Your task to perform on an android device: turn on notifications settings in the gmail app Image 0: 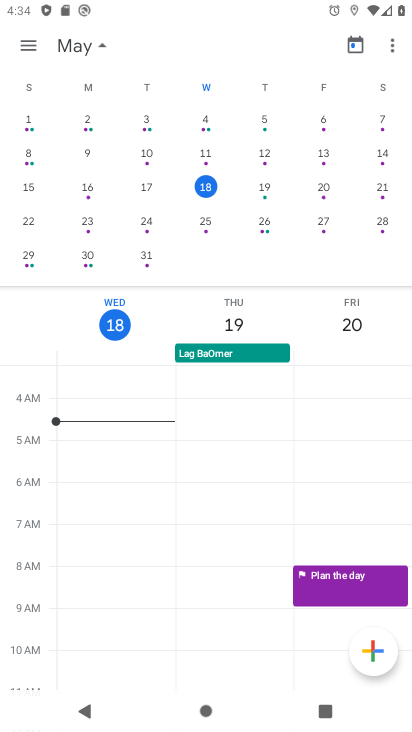
Step 0: press home button
Your task to perform on an android device: turn on notifications settings in the gmail app Image 1: 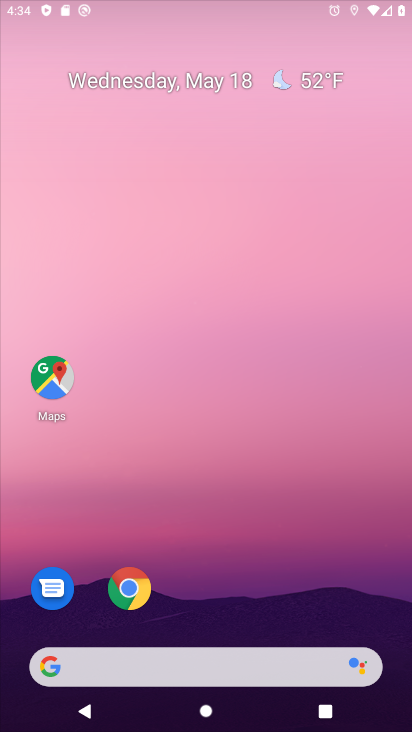
Step 1: drag from (279, 578) to (224, 109)
Your task to perform on an android device: turn on notifications settings in the gmail app Image 2: 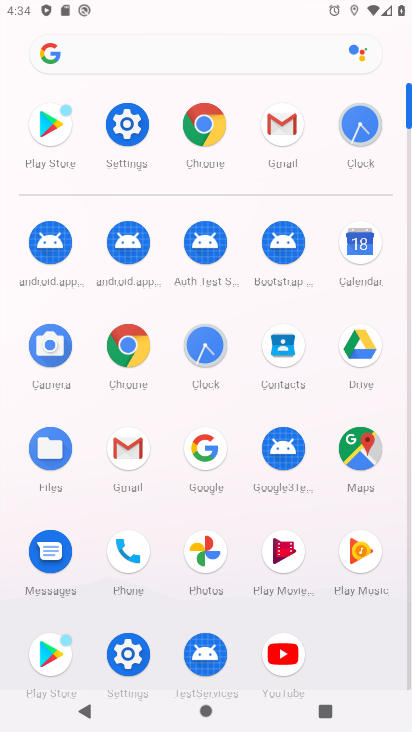
Step 2: click (299, 132)
Your task to perform on an android device: turn on notifications settings in the gmail app Image 3: 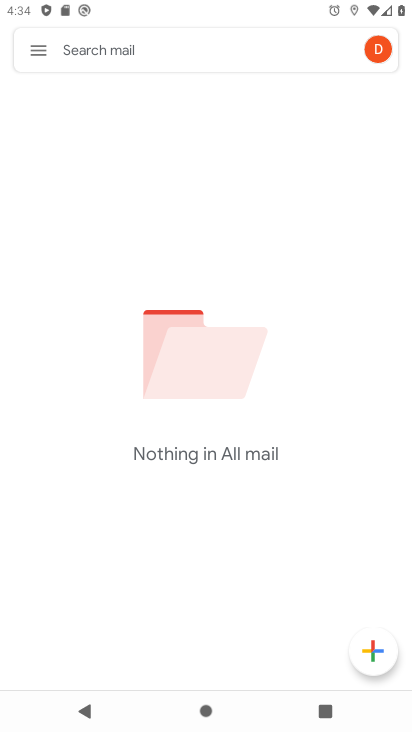
Step 3: click (38, 42)
Your task to perform on an android device: turn on notifications settings in the gmail app Image 4: 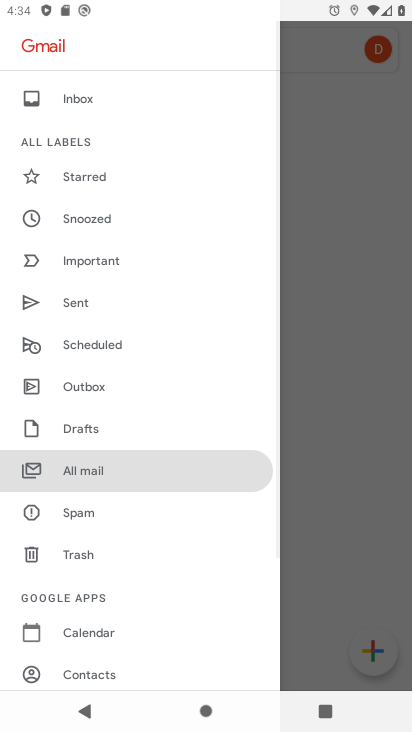
Step 4: drag from (96, 627) to (176, 237)
Your task to perform on an android device: turn on notifications settings in the gmail app Image 5: 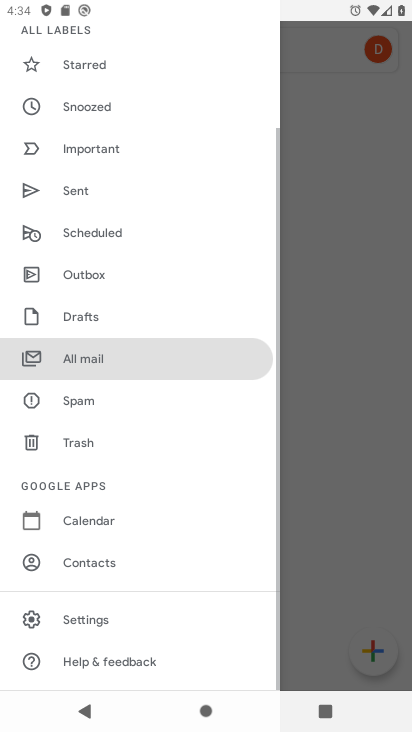
Step 5: click (95, 629)
Your task to perform on an android device: turn on notifications settings in the gmail app Image 6: 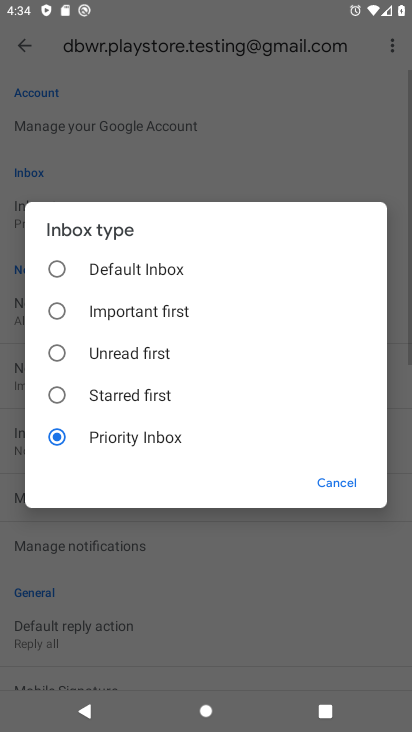
Step 6: click (325, 486)
Your task to perform on an android device: turn on notifications settings in the gmail app Image 7: 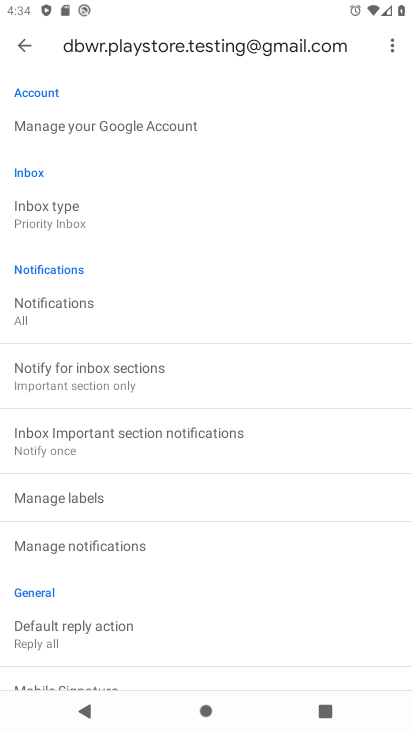
Step 7: drag from (195, 563) to (256, 346)
Your task to perform on an android device: turn on notifications settings in the gmail app Image 8: 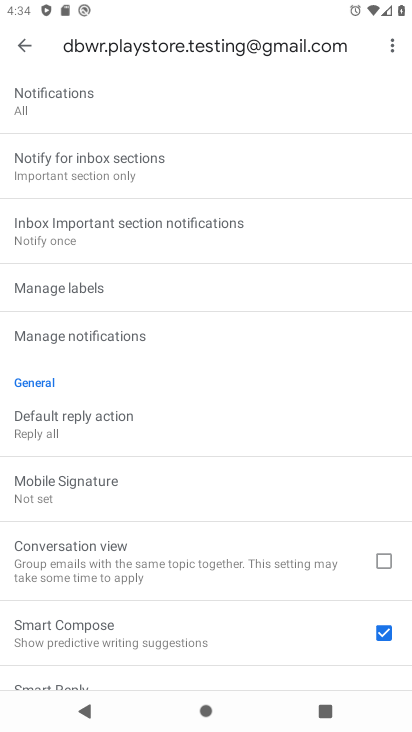
Step 8: click (113, 341)
Your task to perform on an android device: turn on notifications settings in the gmail app Image 9: 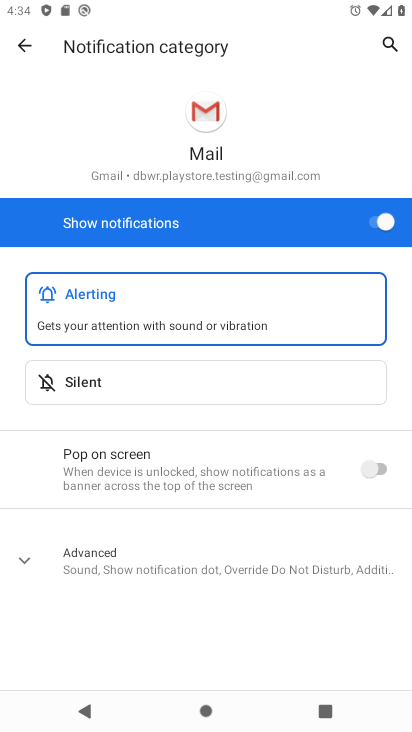
Step 9: task complete